Your task to perform on an android device: Clear all items from cart on ebay.com. Search for bose soundlink on ebay.com, select the first entry, add it to the cart, then select checkout. Image 0: 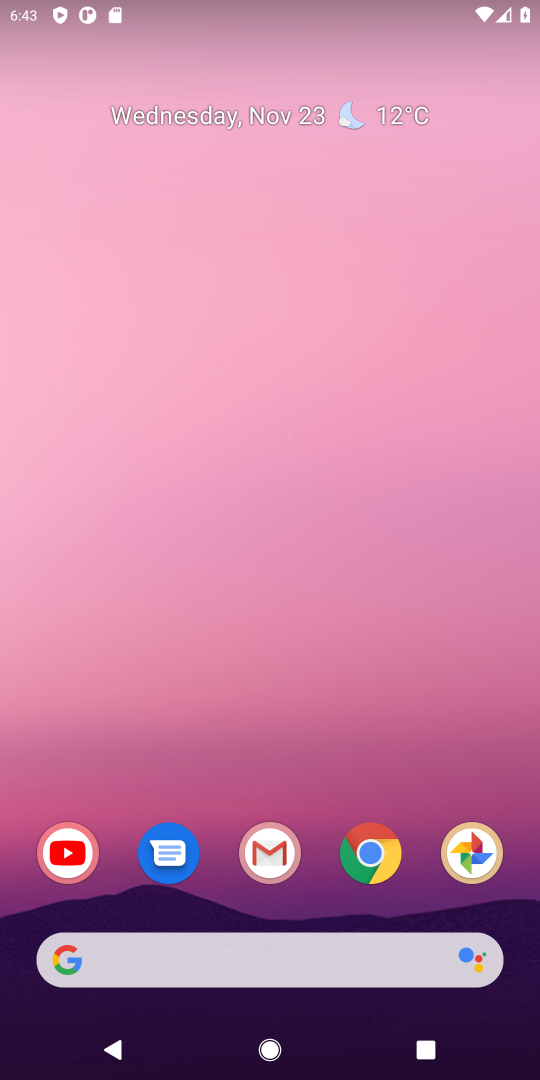
Step 0: click (368, 854)
Your task to perform on an android device: Clear all items from cart on ebay.com. Search for bose soundlink on ebay.com, select the first entry, add it to the cart, then select checkout. Image 1: 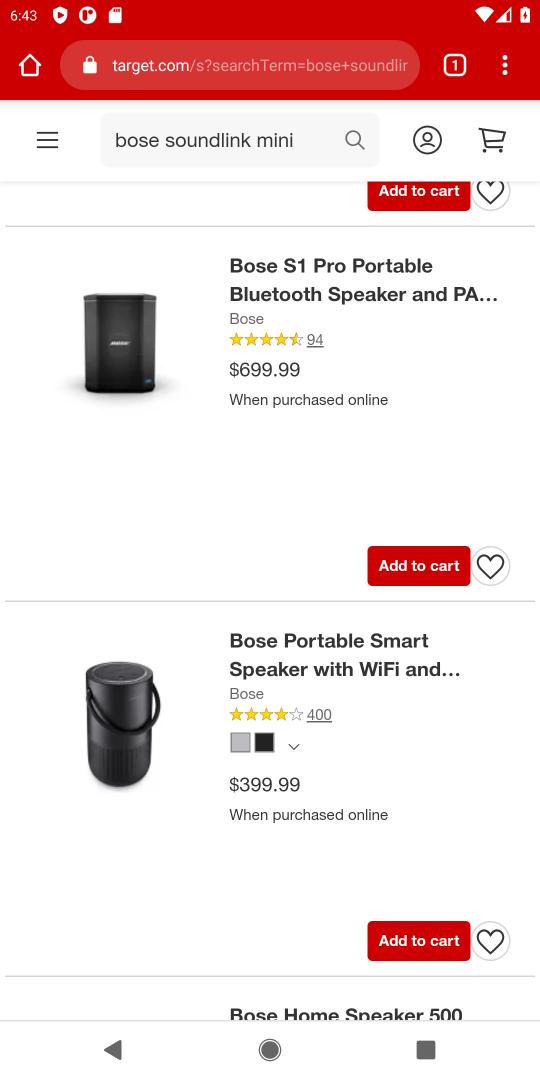
Step 1: click (189, 68)
Your task to perform on an android device: Clear all items from cart on ebay.com. Search for bose soundlink on ebay.com, select the first entry, add it to the cart, then select checkout. Image 2: 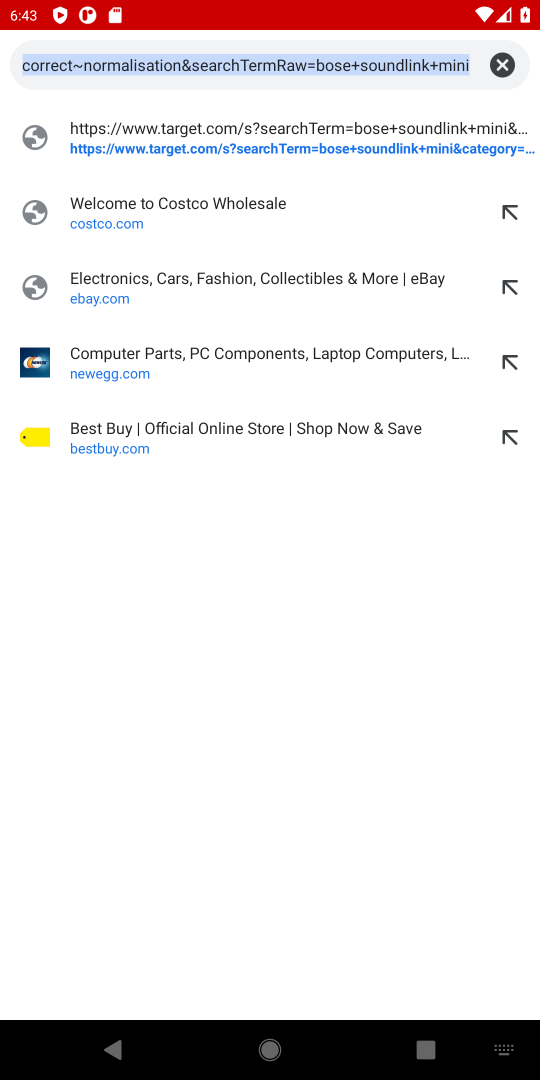
Step 2: click (112, 284)
Your task to perform on an android device: Clear all items from cart on ebay.com. Search for bose soundlink on ebay.com, select the first entry, add it to the cart, then select checkout. Image 3: 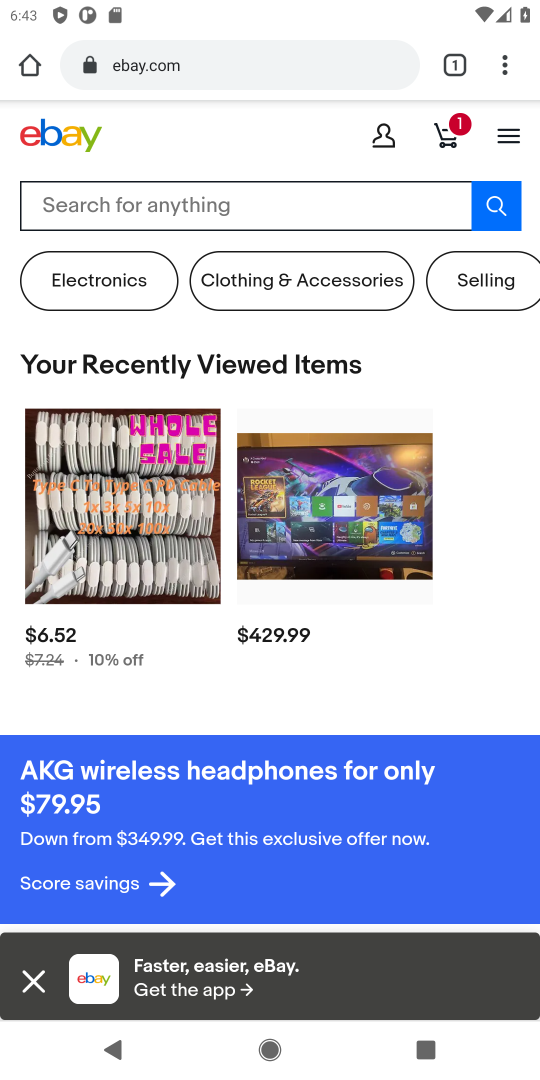
Step 3: click (452, 138)
Your task to perform on an android device: Clear all items from cart on ebay.com. Search for bose soundlink on ebay.com, select the first entry, add it to the cart, then select checkout. Image 4: 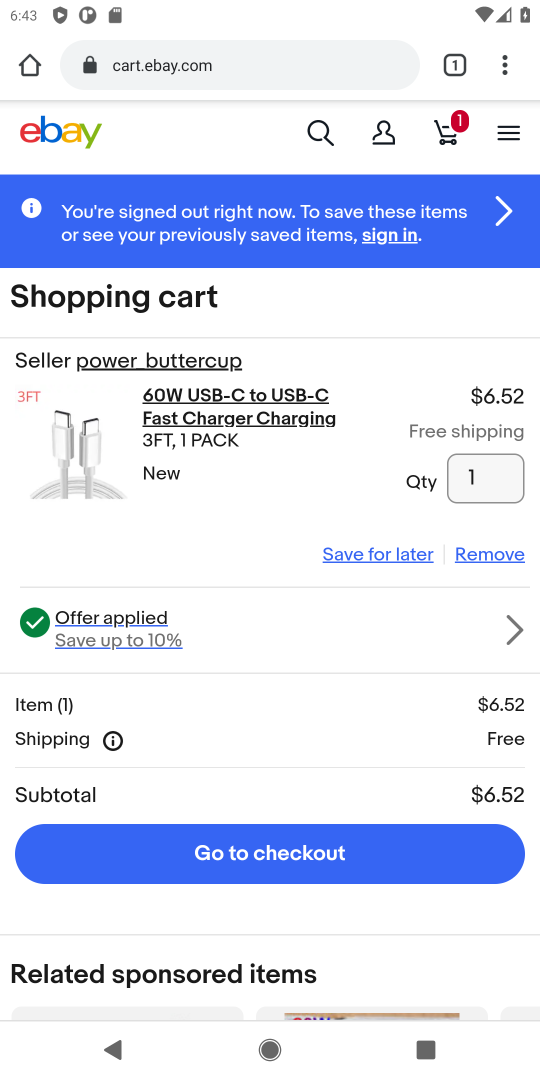
Step 4: click (484, 559)
Your task to perform on an android device: Clear all items from cart on ebay.com. Search for bose soundlink on ebay.com, select the first entry, add it to the cart, then select checkout. Image 5: 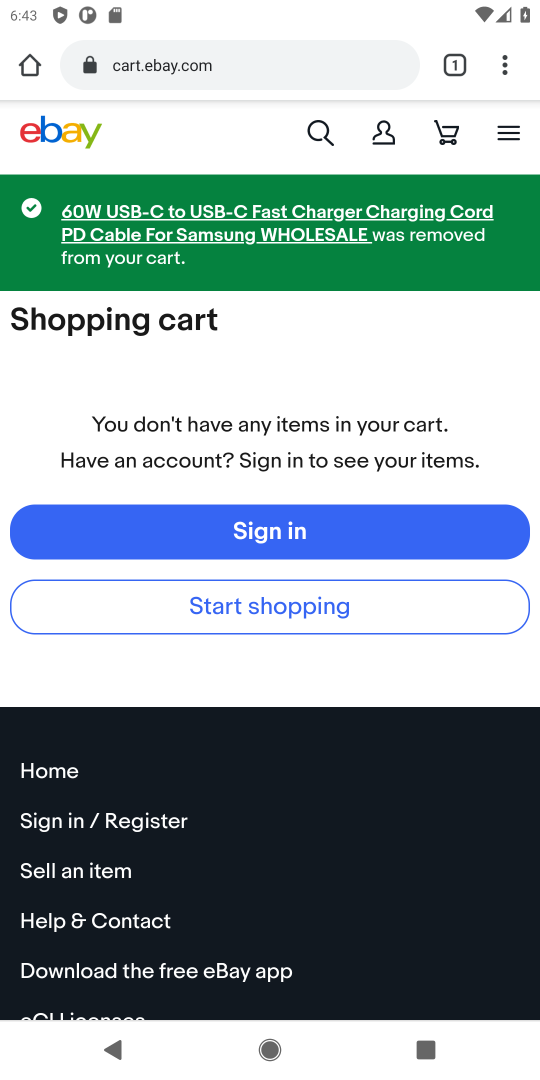
Step 5: click (314, 136)
Your task to perform on an android device: Clear all items from cart on ebay.com. Search for bose soundlink on ebay.com, select the first entry, add it to the cart, then select checkout. Image 6: 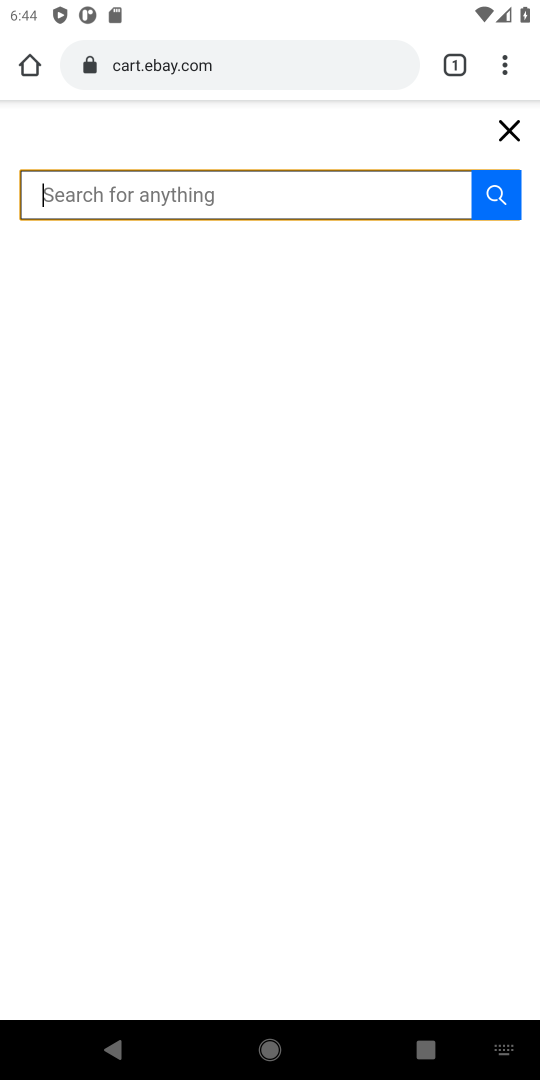
Step 6: type " bose soundlink "
Your task to perform on an android device: Clear all items from cart on ebay.com. Search for bose soundlink on ebay.com, select the first entry, add it to the cart, then select checkout. Image 7: 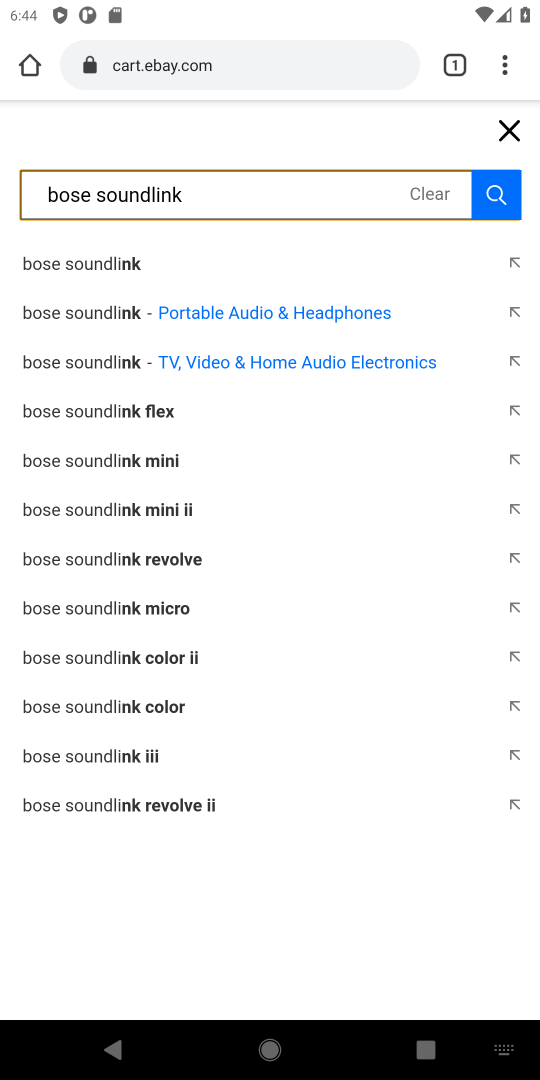
Step 7: click (62, 268)
Your task to perform on an android device: Clear all items from cart on ebay.com. Search for bose soundlink on ebay.com, select the first entry, add it to the cart, then select checkout. Image 8: 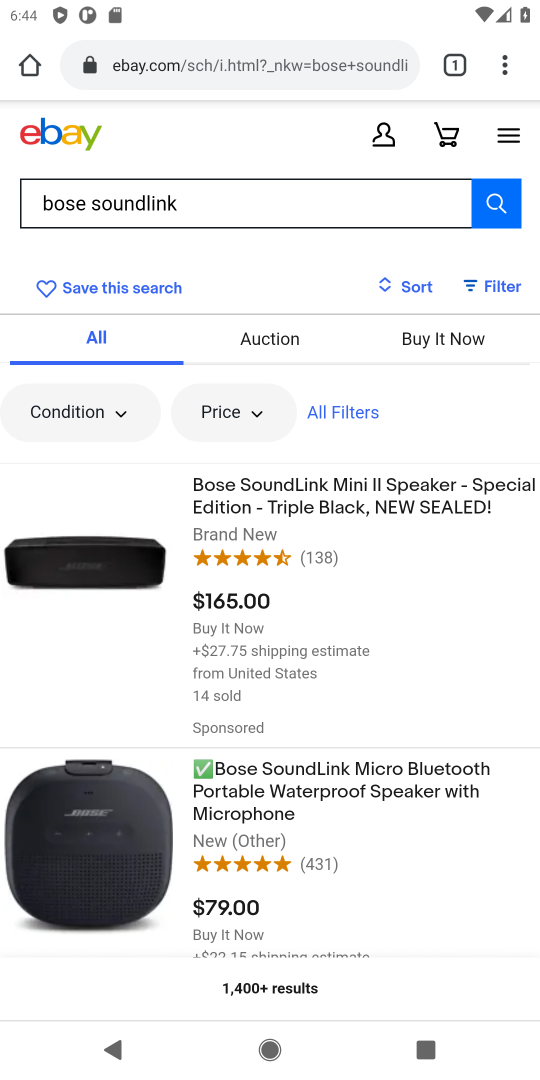
Step 8: click (84, 580)
Your task to perform on an android device: Clear all items from cart on ebay.com. Search for bose soundlink on ebay.com, select the first entry, add it to the cart, then select checkout. Image 9: 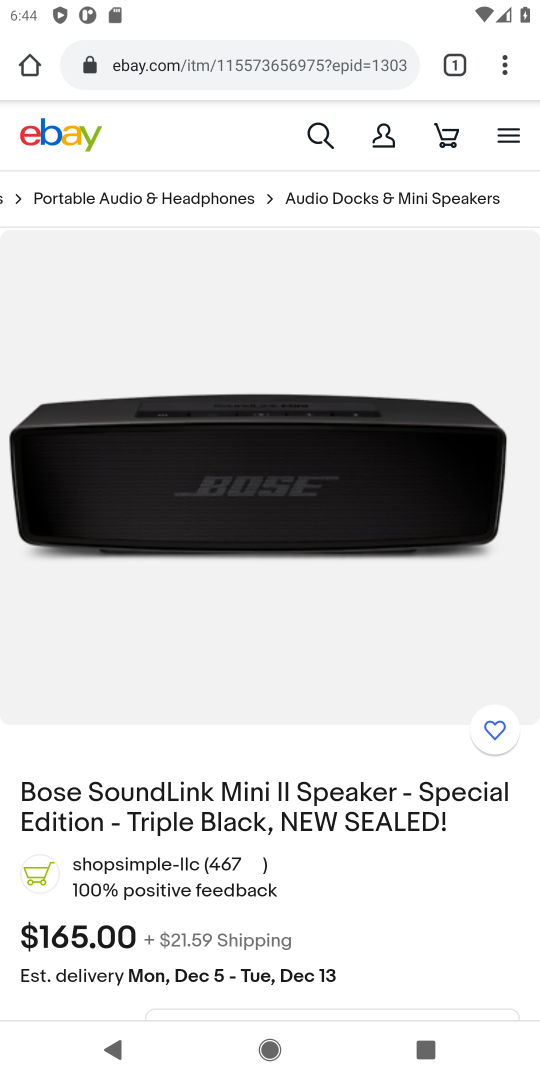
Step 9: drag from (241, 808) to (190, 328)
Your task to perform on an android device: Clear all items from cart on ebay.com. Search for bose soundlink on ebay.com, select the first entry, add it to the cart, then select checkout. Image 10: 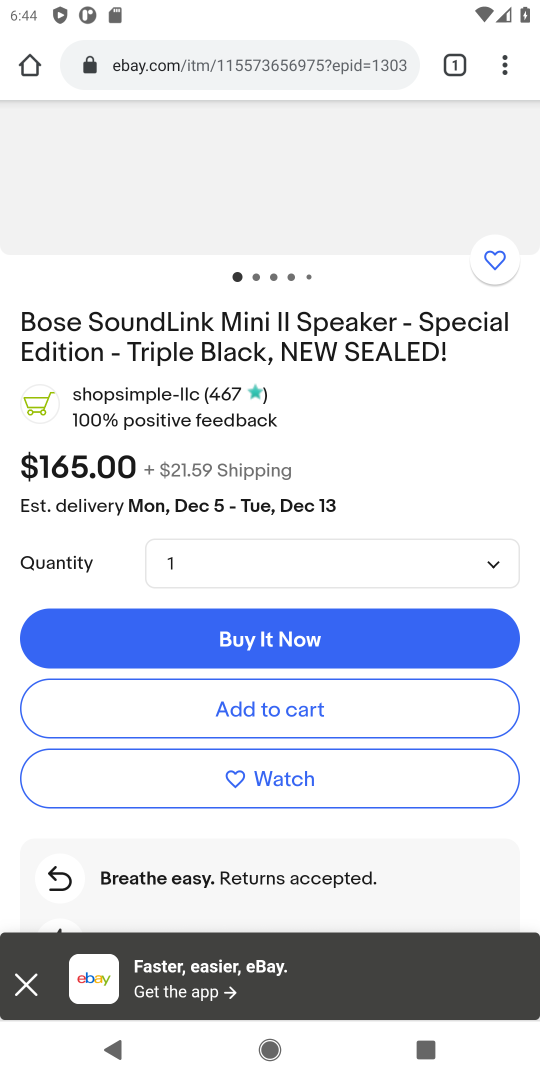
Step 10: click (242, 711)
Your task to perform on an android device: Clear all items from cart on ebay.com. Search for bose soundlink on ebay.com, select the first entry, add it to the cart, then select checkout. Image 11: 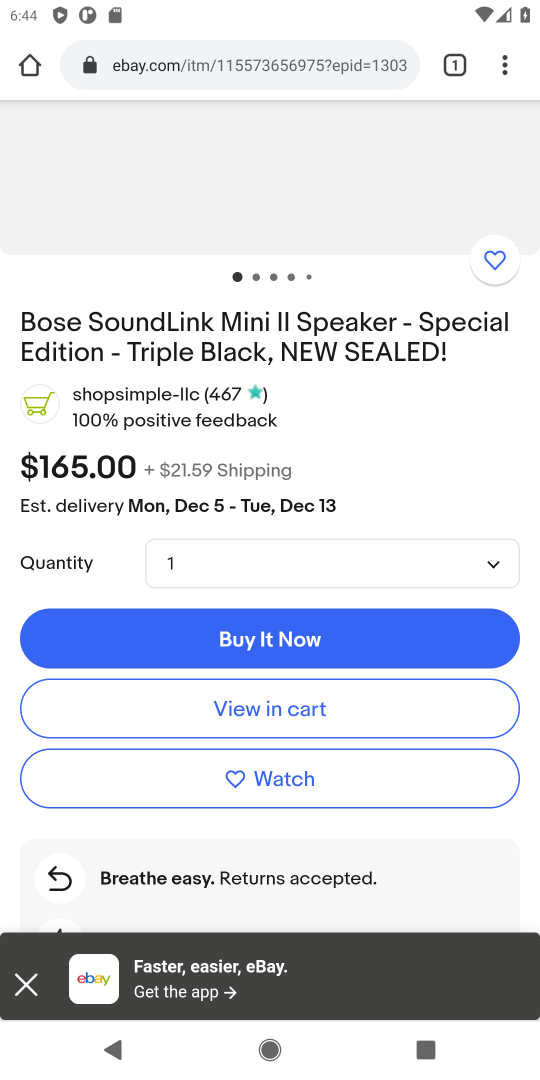
Step 11: click (242, 711)
Your task to perform on an android device: Clear all items from cart on ebay.com. Search for bose soundlink on ebay.com, select the first entry, add it to the cart, then select checkout. Image 12: 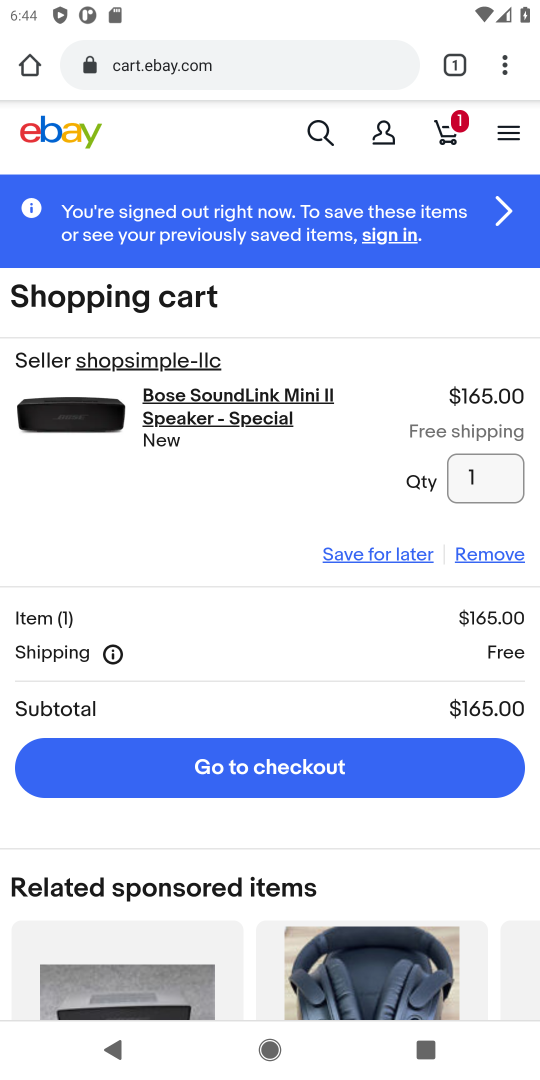
Step 12: click (242, 768)
Your task to perform on an android device: Clear all items from cart on ebay.com. Search for bose soundlink on ebay.com, select the first entry, add it to the cart, then select checkout. Image 13: 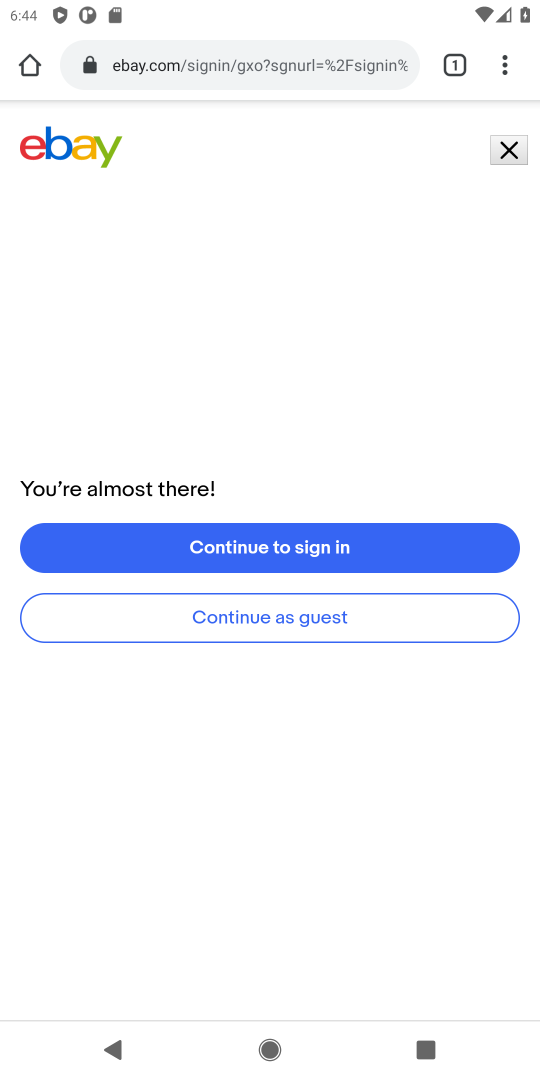
Step 13: task complete